Your task to perform on an android device: turn pop-ups on in chrome Image 0: 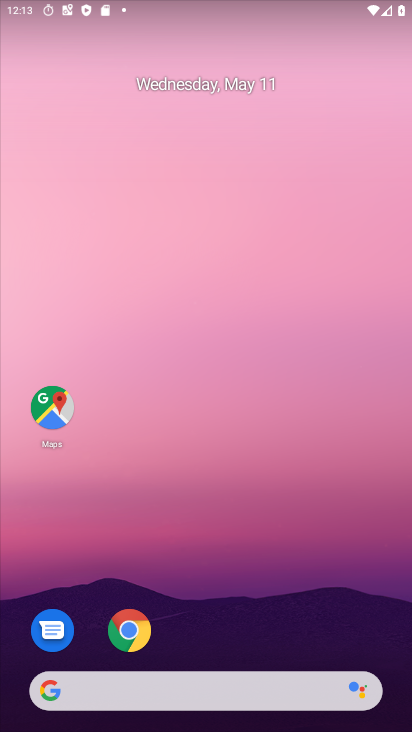
Step 0: click (131, 629)
Your task to perform on an android device: turn pop-ups on in chrome Image 1: 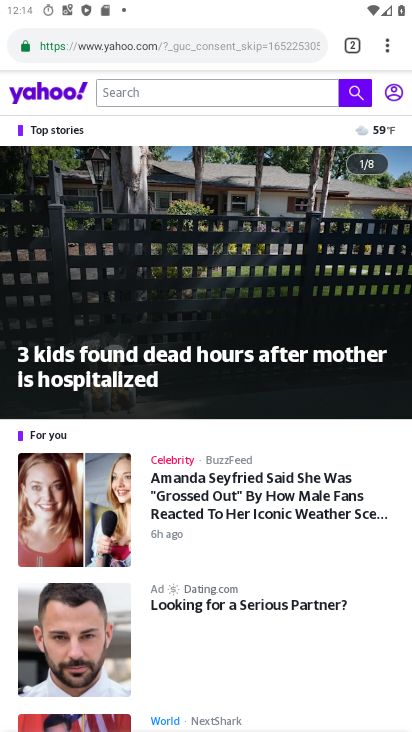
Step 1: drag from (393, 37) to (240, 548)
Your task to perform on an android device: turn pop-ups on in chrome Image 2: 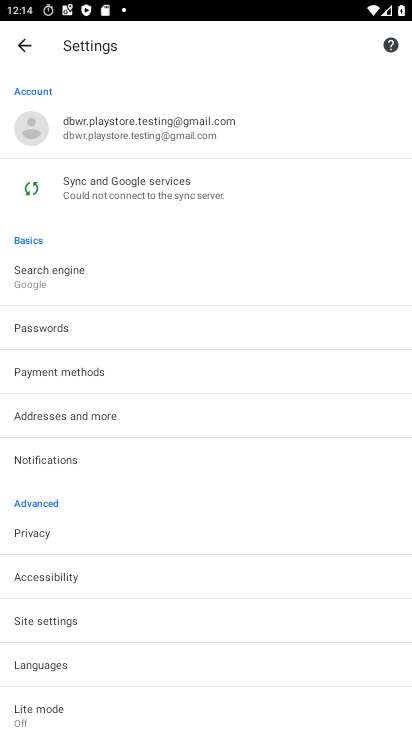
Step 2: drag from (130, 613) to (193, 254)
Your task to perform on an android device: turn pop-ups on in chrome Image 3: 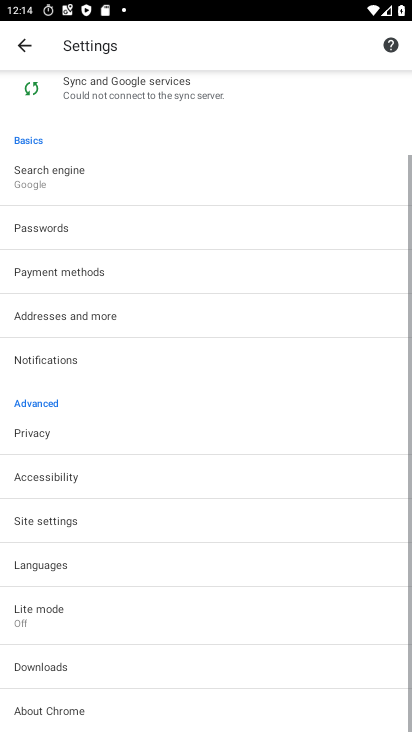
Step 3: click (94, 531)
Your task to perform on an android device: turn pop-ups on in chrome Image 4: 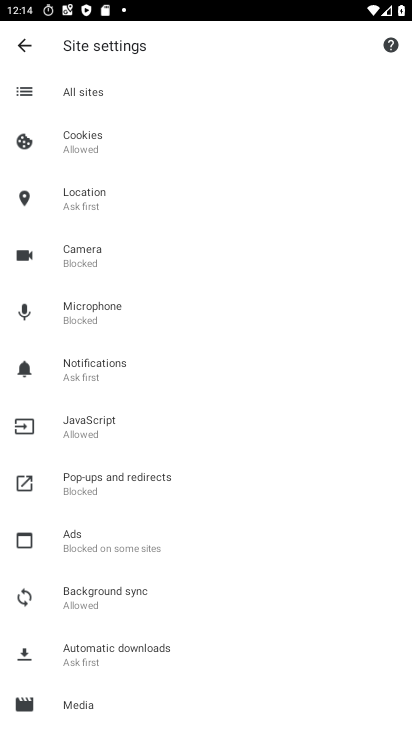
Step 4: click (113, 480)
Your task to perform on an android device: turn pop-ups on in chrome Image 5: 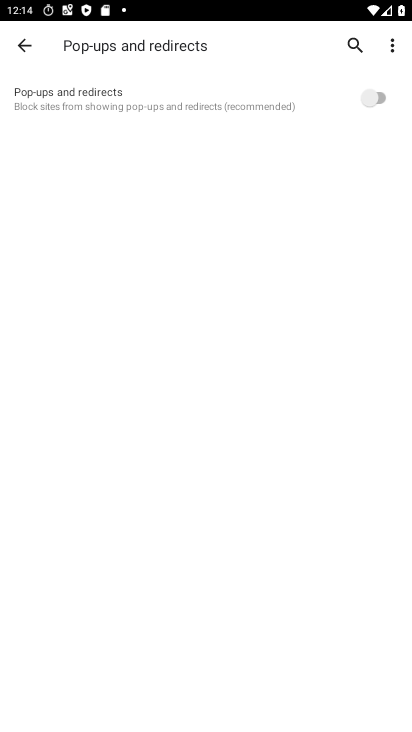
Step 5: click (382, 89)
Your task to perform on an android device: turn pop-ups on in chrome Image 6: 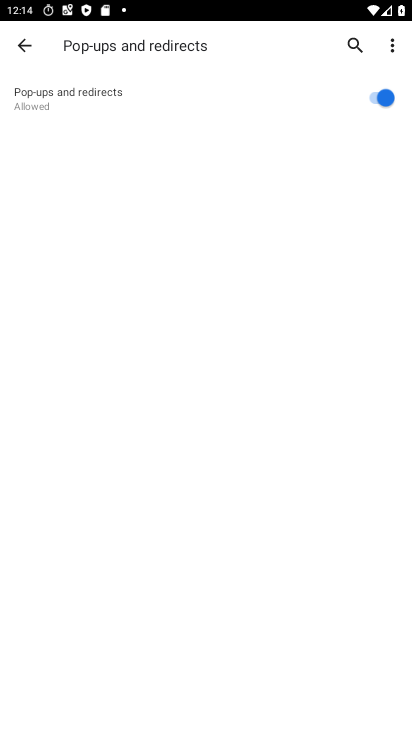
Step 6: task complete